Your task to perform on an android device: open a bookmark in the chrome app Image 0: 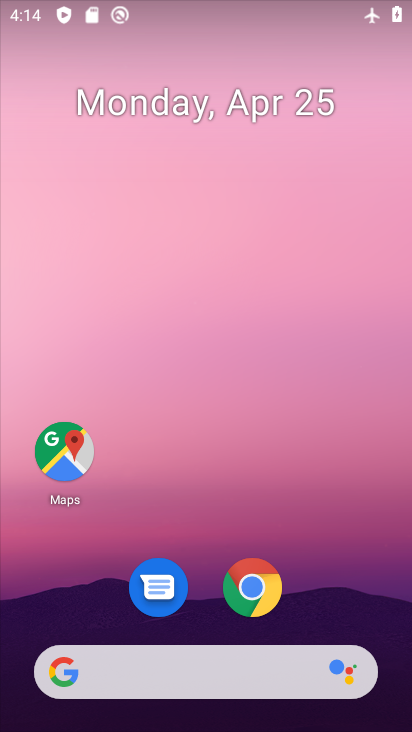
Step 0: click (268, 600)
Your task to perform on an android device: open a bookmark in the chrome app Image 1: 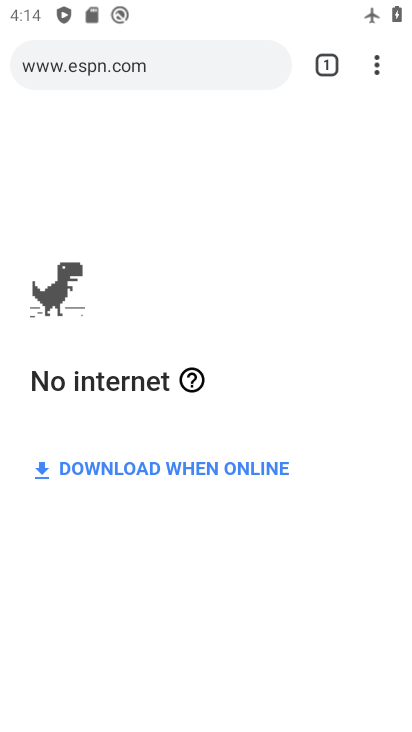
Step 1: task complete